Your task to perform on an android device: open a new tab in the chrome app Image 0: 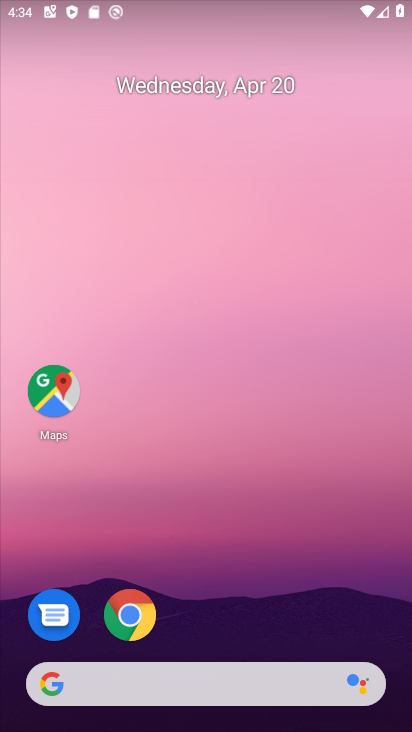
Step 0: click (129, 614)
Your task to perform on an android device: open a new tab in the chrome app Image 1: 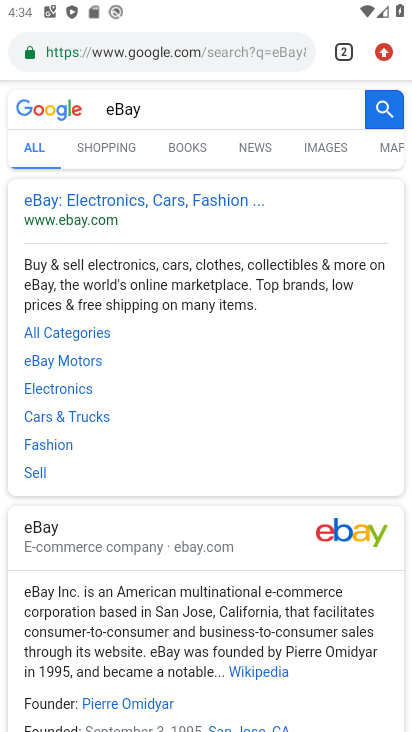
Step 1: click (381, 48)
Your task to perform on an android device: open a new tab in the chrome app Image 2: 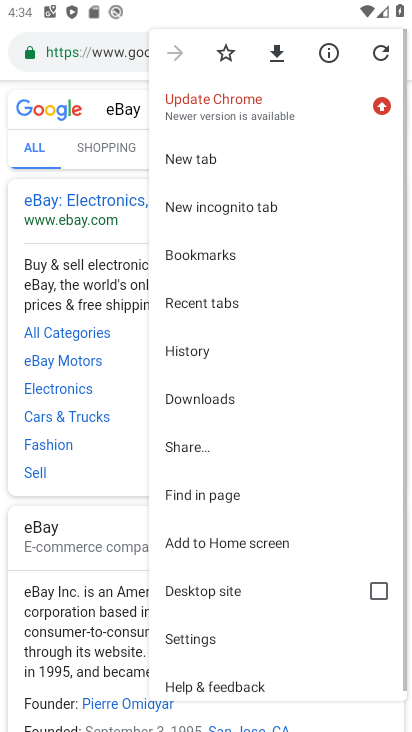
Step 2: click (215, 161)
Your task to perform on an android device: open a new tab in the chrome app Image 3: 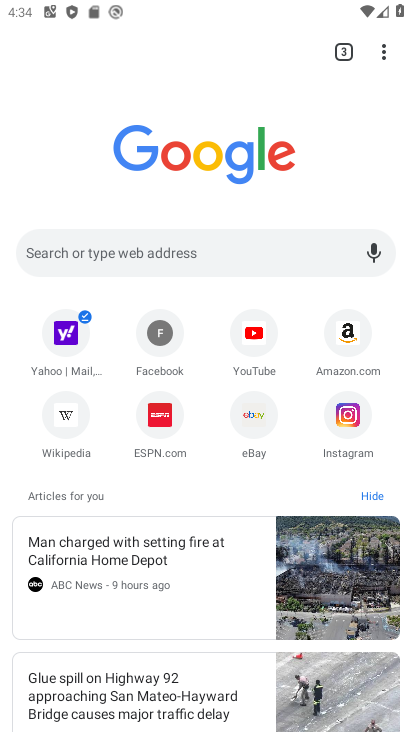
Step 3: task complete